Your task to perform on an android device: How much does a 3 bedroom apartment rent for in Boston? Image 0: 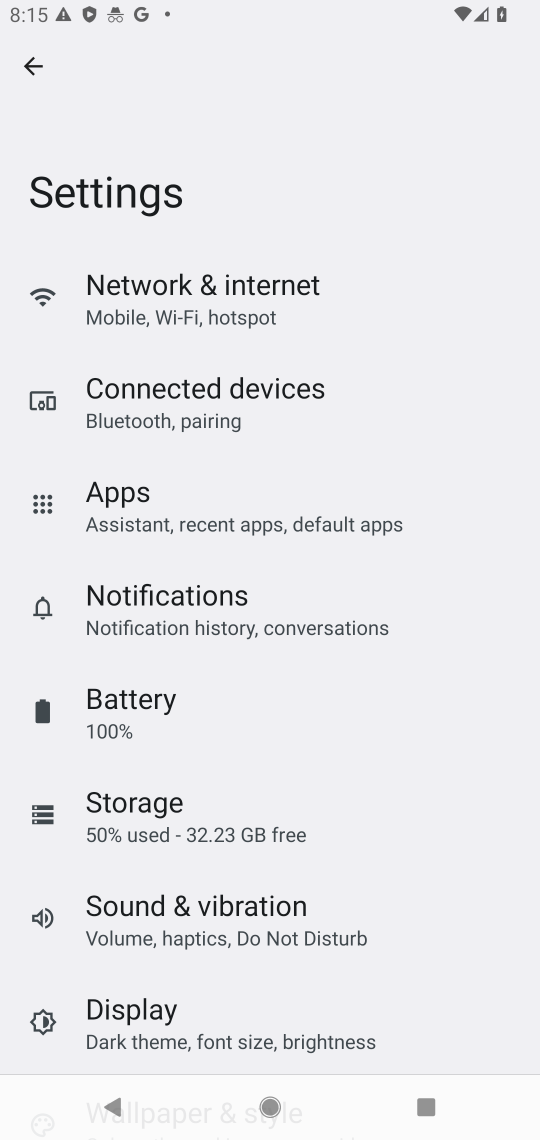
Step 0: press home button
Your task to perform on an android device: How much does a 3 bedroom apartment rent for in Boston? Image 1: 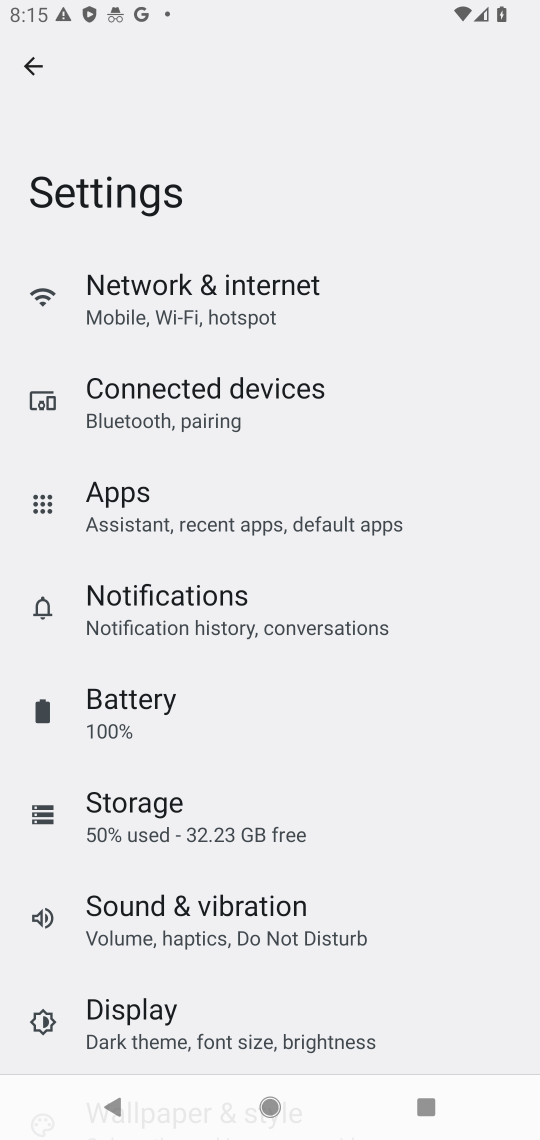
Step 1: press home button
Your task to perform on an android device: How much does a 3 bedroom apartment rent for in Boston? Image 2: 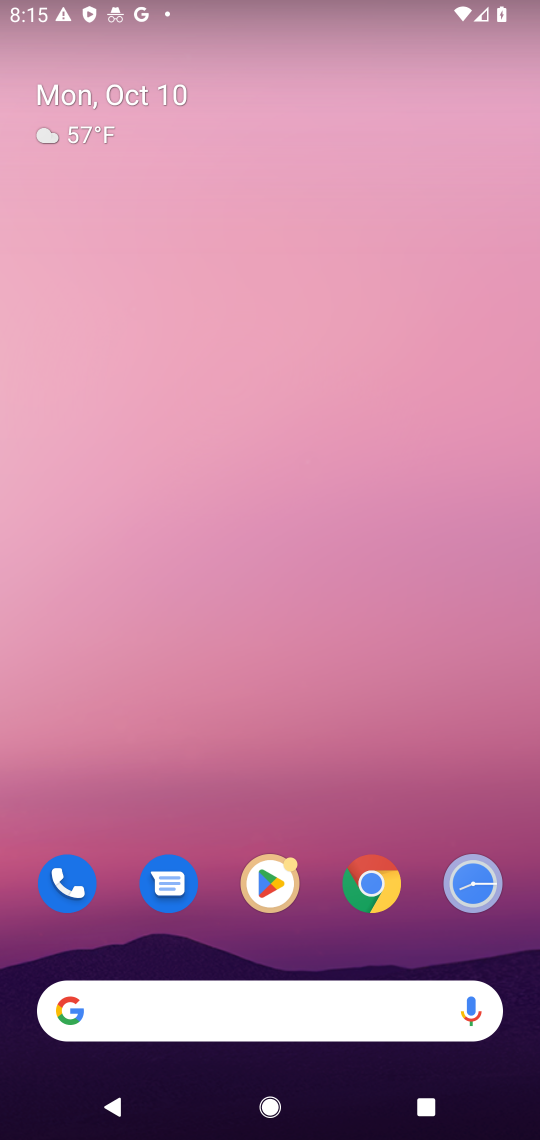
Step 2: drag from (256, 1007) to (256, 392)
Your task to perform on an android device: How much does a 3 bedroom apartment rent for in Boston? Image 3: 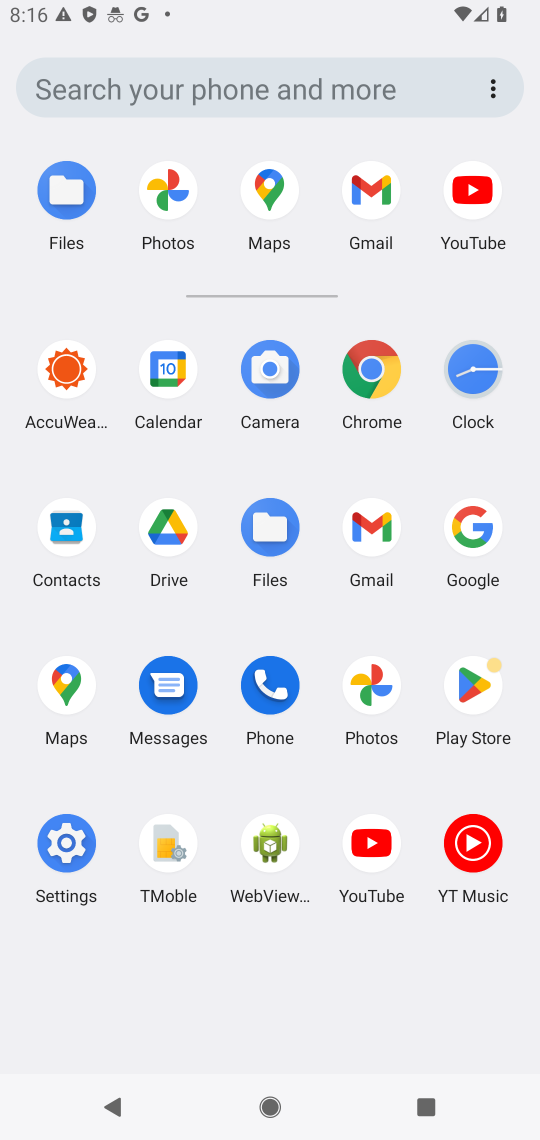
Step 3: click (463, 579)
Your task to perform on an android device: How much does a 3 bedroom apartment rent for in Boston? Image 4: 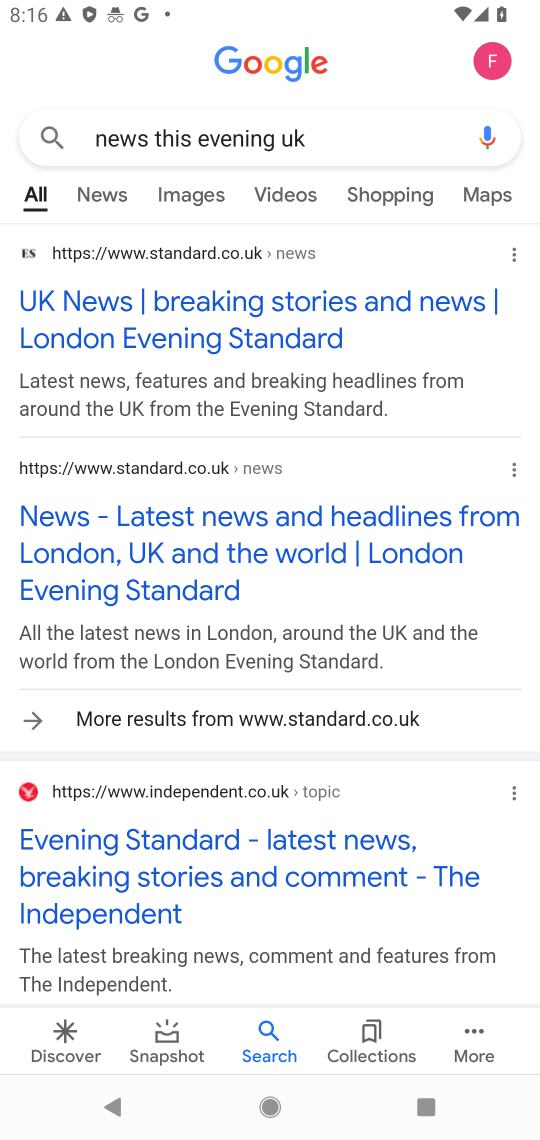
Step 4: click (346, 143)
Your task to perform on an android device: How much does a 3 bedroom apartment rent for in Boston? Image 5: 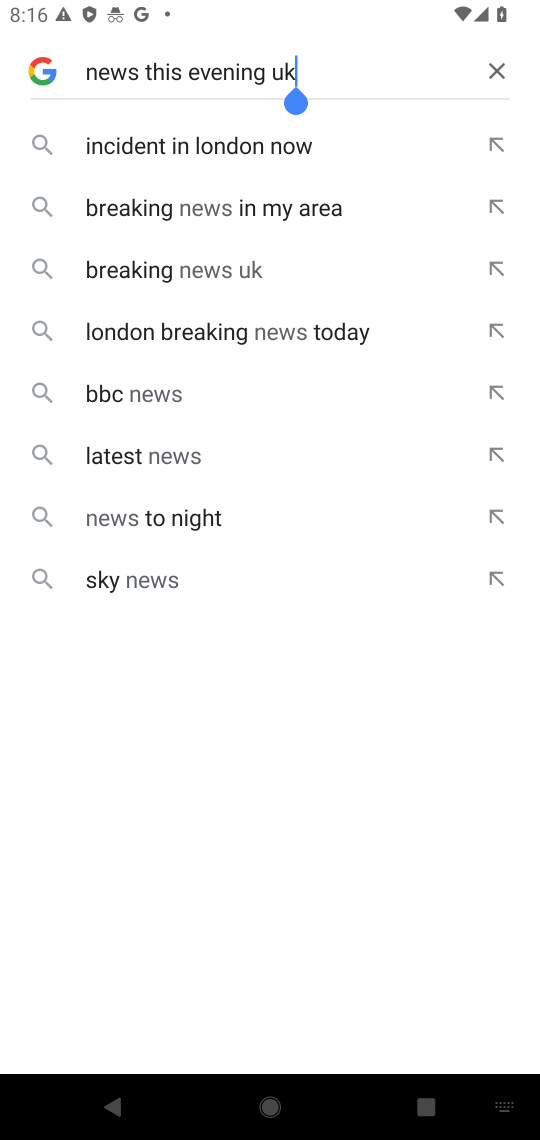
Step 5: click (492, 72)
Your task to perform on an android device: How much does a 3 bedroom apartment rent for in Boston? Image 6: 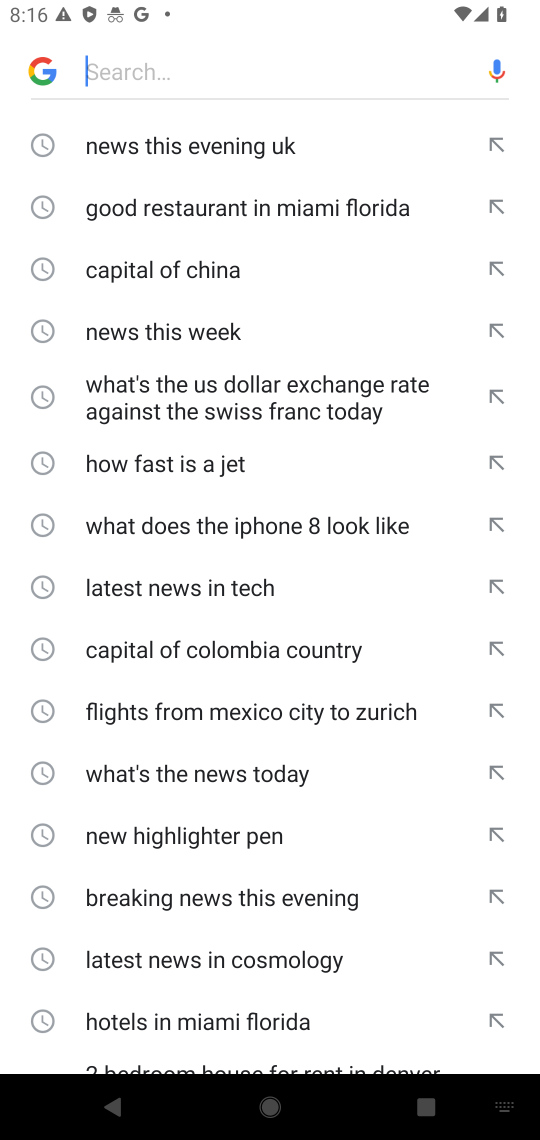
Step 6: type "3 bedroom apartment rent for in Boston"
Your task to perform on an android device: How much does a 3 bedroom apartment rent for in Boston? Image 7: 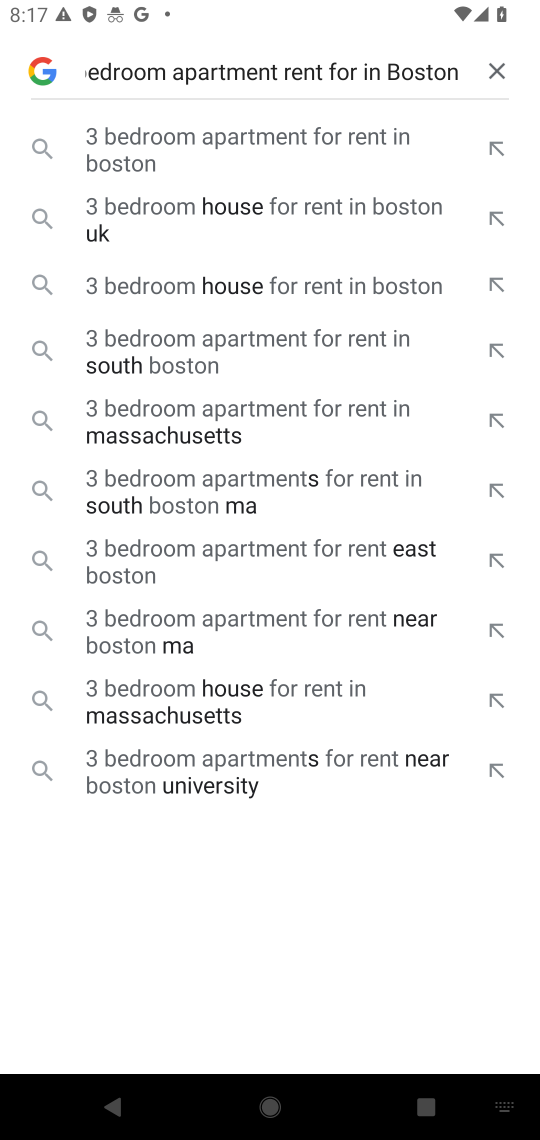
Step 7: click (412, 131)
Your task to perform on an android device: How much does a 3 bedroom apartment rent for in Boston? Image 8: 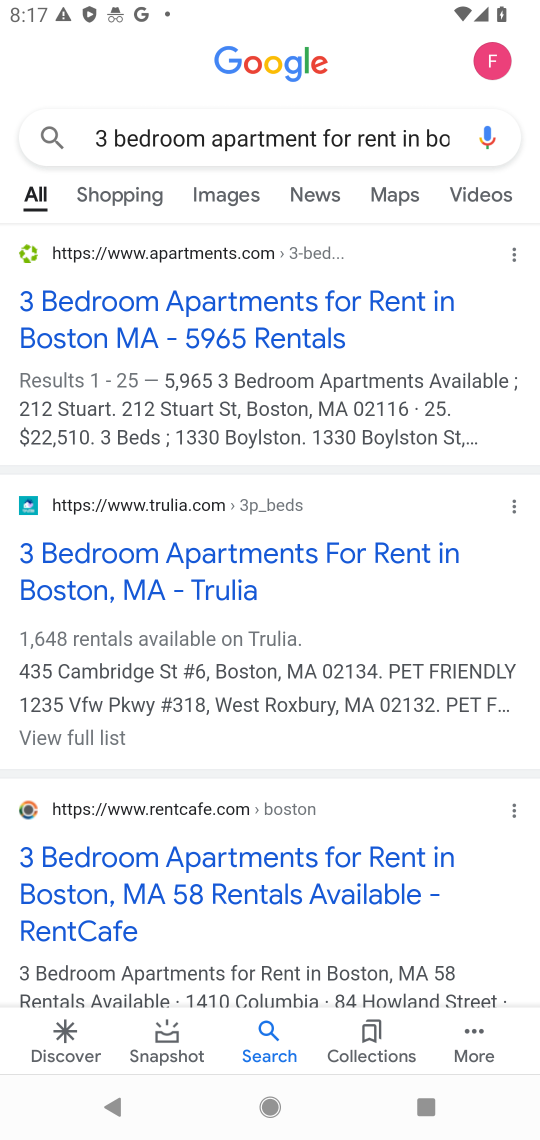
Step 8: click (320, 321)
Your task to perform on an android device: How much does a 3 bedroom apartment rent for in Boston? Image 9: 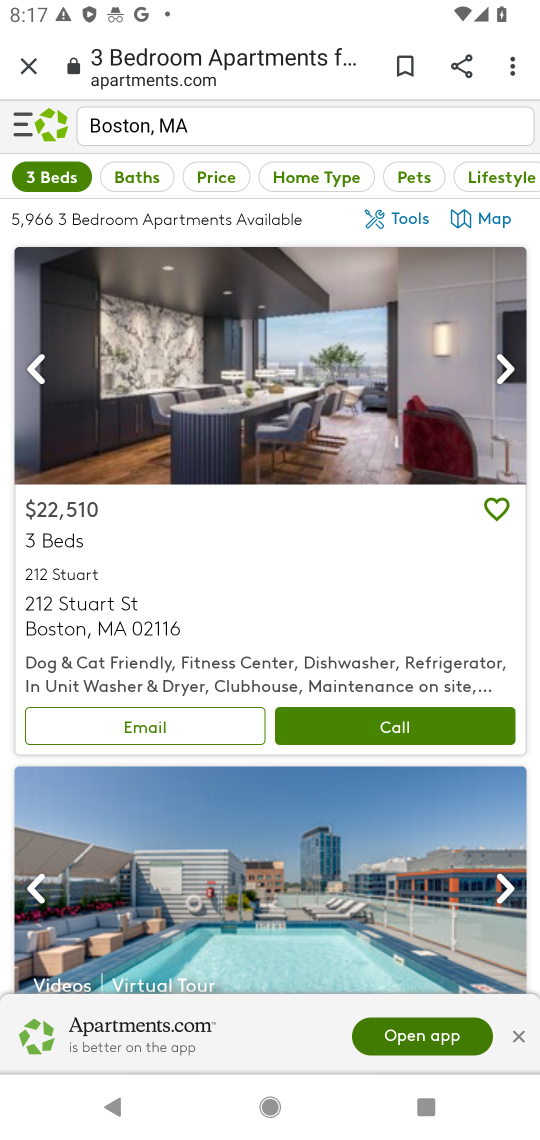
Step 9: task complete